Your task to perform on an android device: open a new tab in the chrome app Image 0: 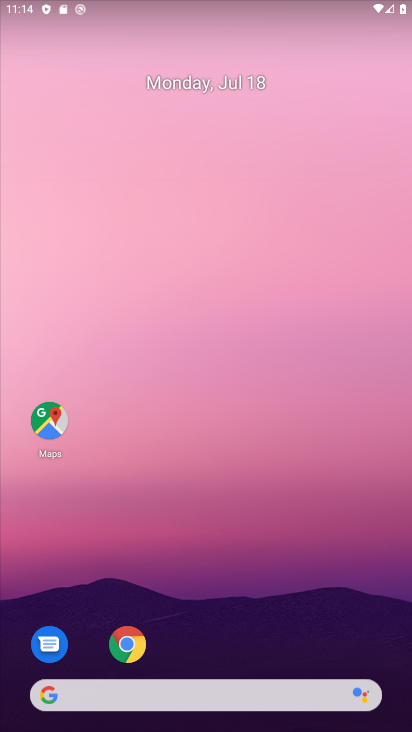
Step 0: click (137, 648)
Your task to perform on an android device: open a new tab in the chrome app Image 1: 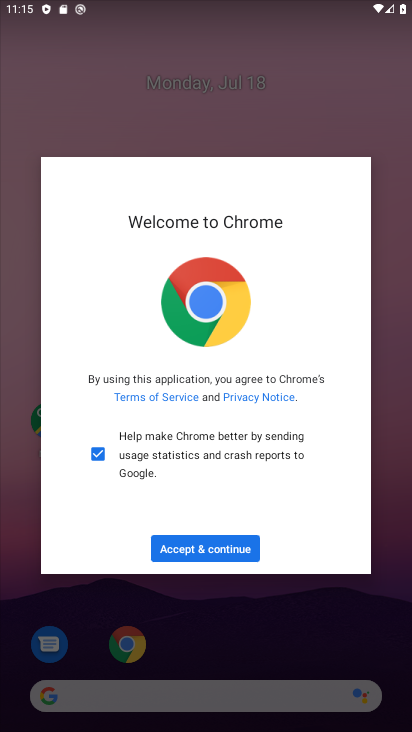
Step 1: click (225, 547)
Your task to perform on an android device: open a new tab in the chrome app Image 2: 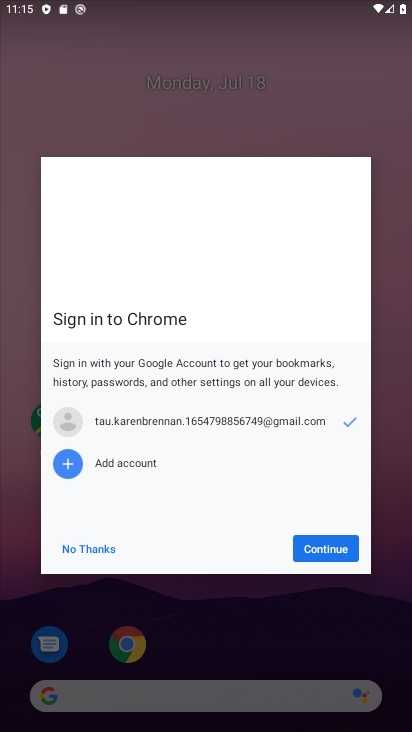
Step 2: click (332, 551)
Your task to perform on an android device: open a new tab in the chrome app Image 3: 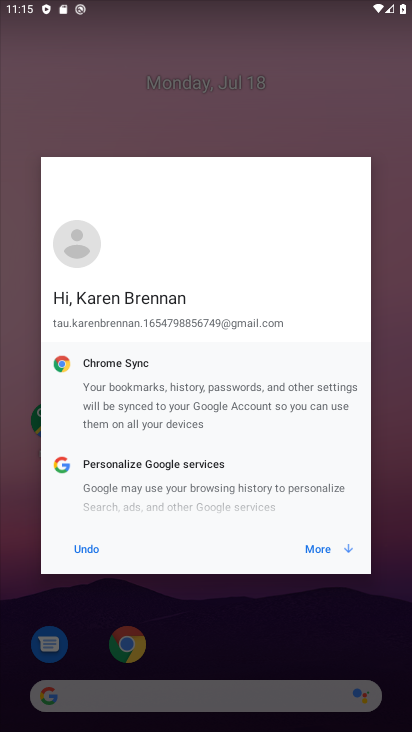
Step 3: click (358, 541)
Your task to perform on an android device: open a new tab in the chrome app Image 4: 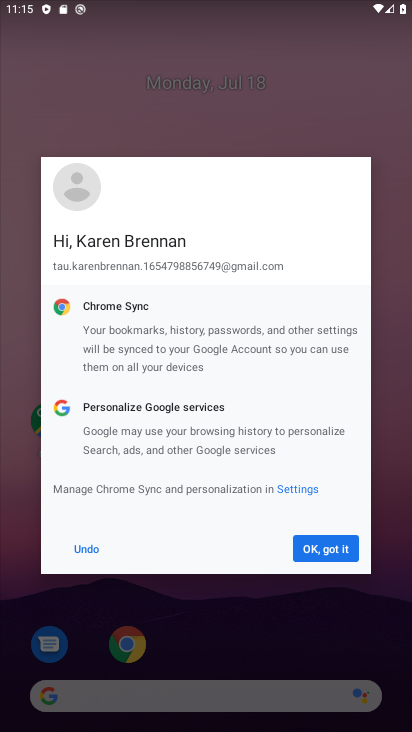
Step 4: click (347, 545)
Your task to perform on an android device: open a new tab in the chrome app Image 5: 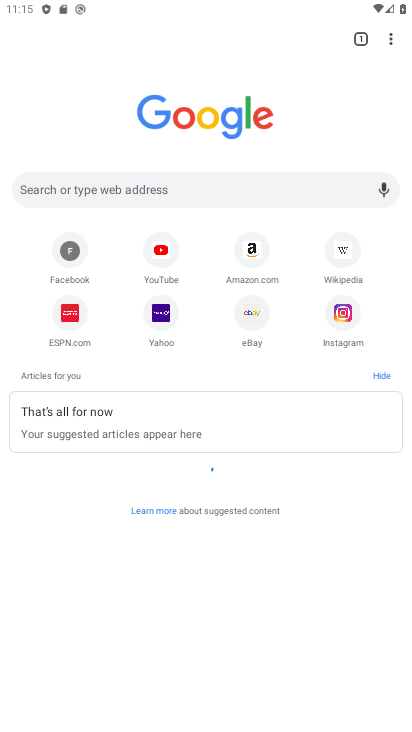
Step 5: task complete